Your task to perform on an android device: What is the news today? Image 0: 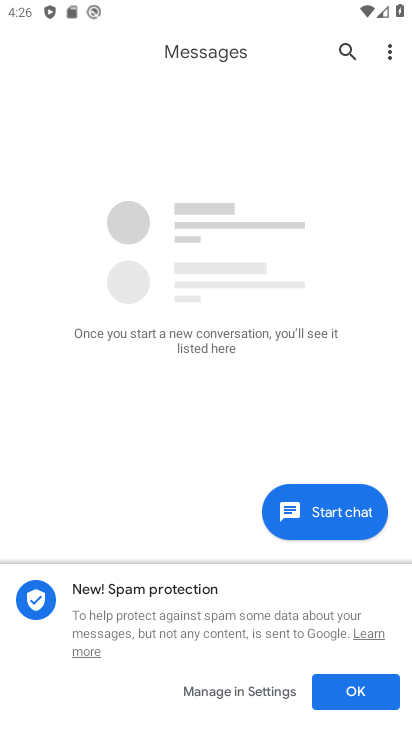
Step 0: press home button
Your task to perform on an android device: What is the news today? Image 1: 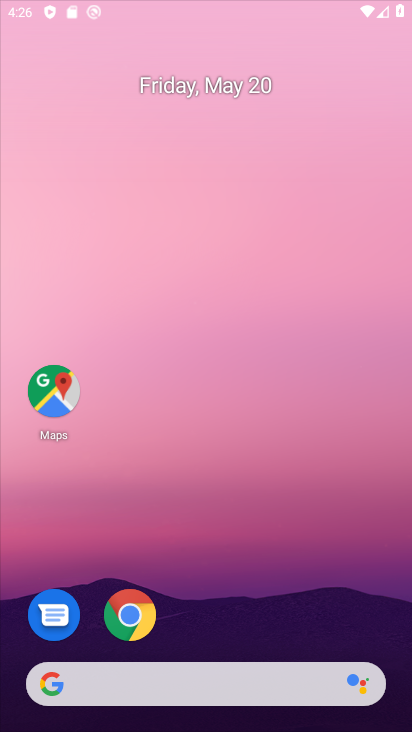
Step 1: drag from (235, 673) to (286, 185)
Your task to perform on an android device: What is the news today? Image 2: 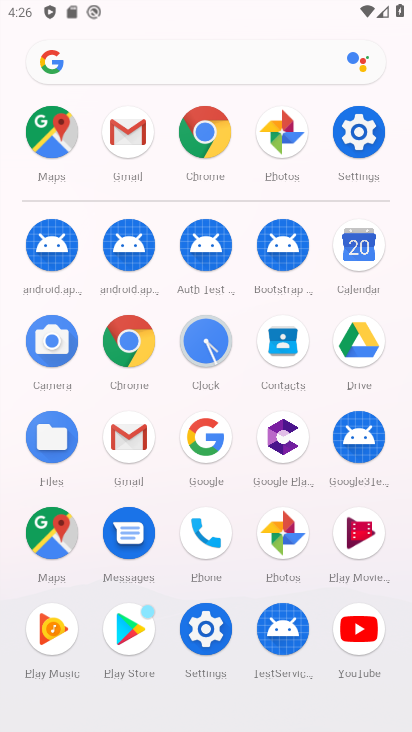
Step 2: click (223, 453)
Your task to perform on an android device: What is the news today? Image 3: 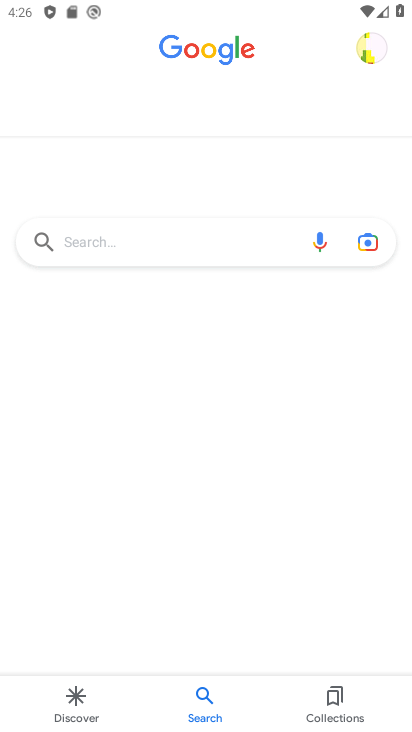
Step 3: click (206, 256)
Your task to perform on an android device: What is the news today? Image 4: 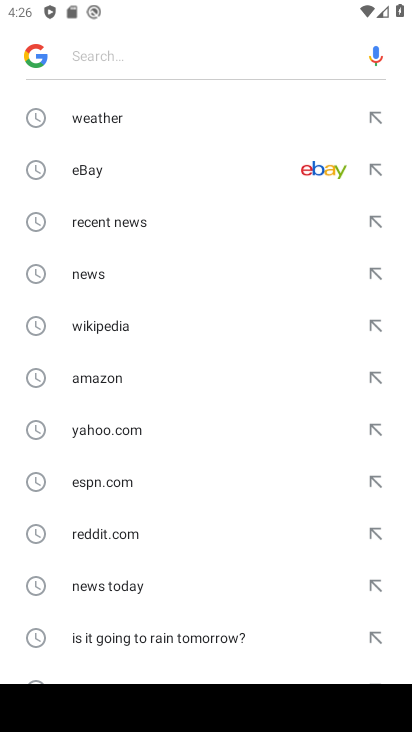
Step 4: click (157, 227)
Your task to perform on an android device: What is the news today? Image 5: 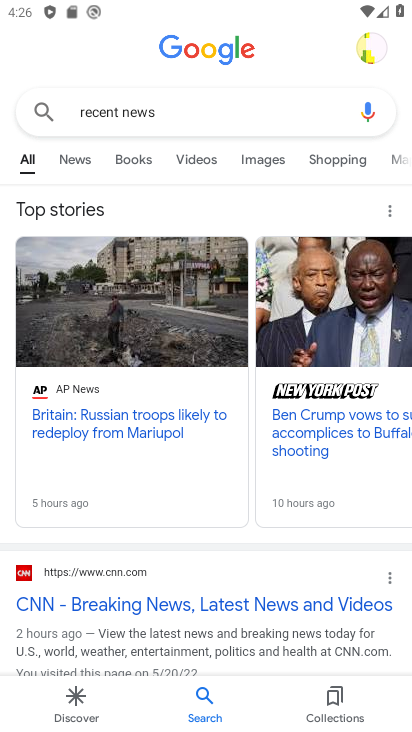
Step 5: click (82, 164)
Your task to perform on an android device: What is the news today? Image 6: 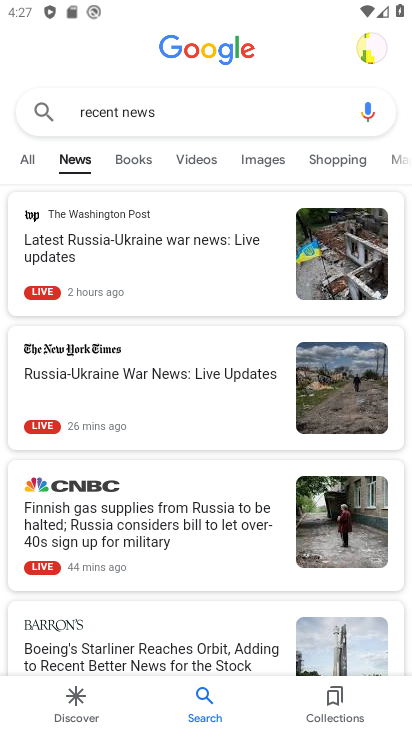
Step 6: task complete